Your task to perform on an android device: change notification settings in the gmail app Image 0: 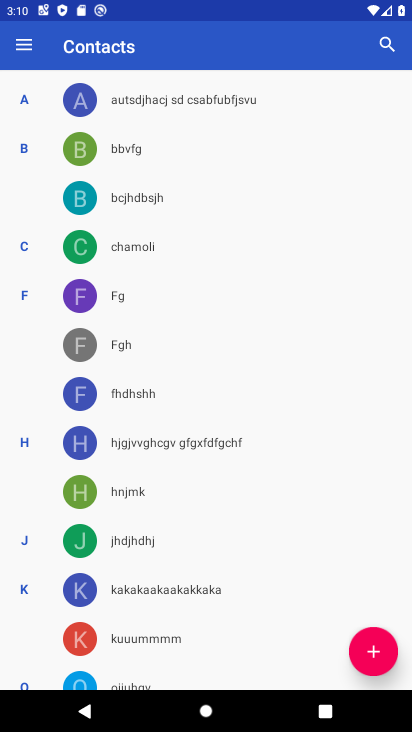
Step 0: press home button
Your task to perform on an android device: change notification settings in the gmail app Image 1: 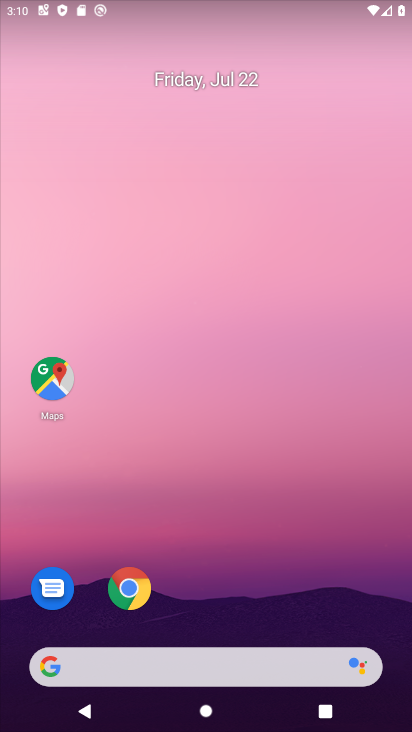
Step 1: drag from (187, 633) to (232, 295)
Your task to perform on an android device: change notification settings in the gmail app Image 2: 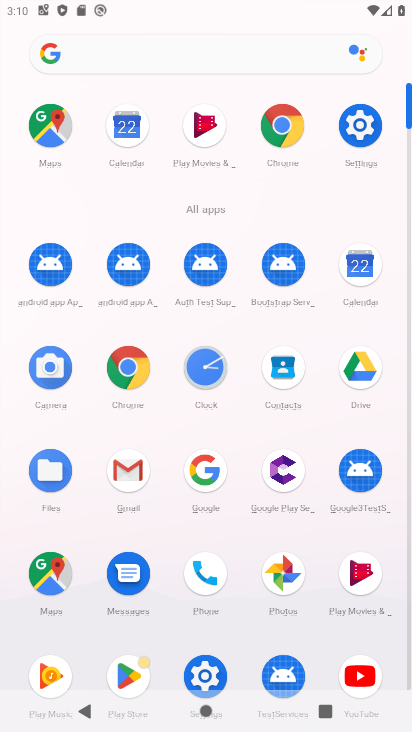
Step 2: click (142, 466)
Your task to perform on an android device: change notification settings in the gmail app Image 3: 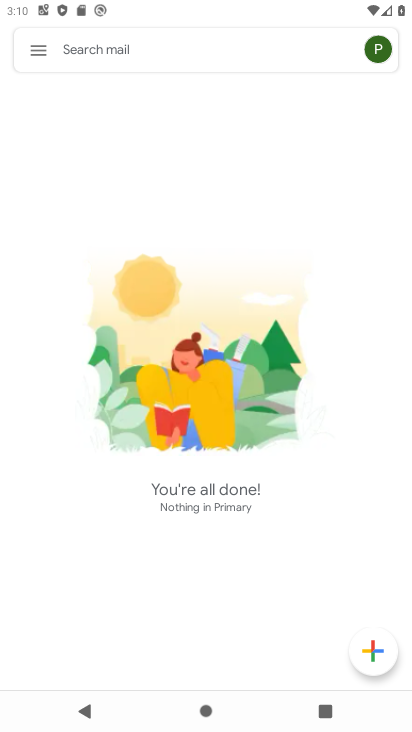
Step 3: click (46, 46)
Your task to perform on an android device: change notification settings in the gmail app Image 4: 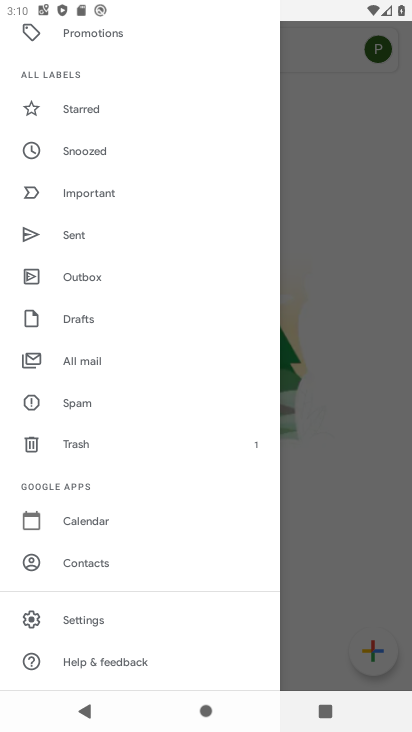
Step 4: click (72, 617)
Your task to perform on an android device: change notification settings in the gmail app Image 5: 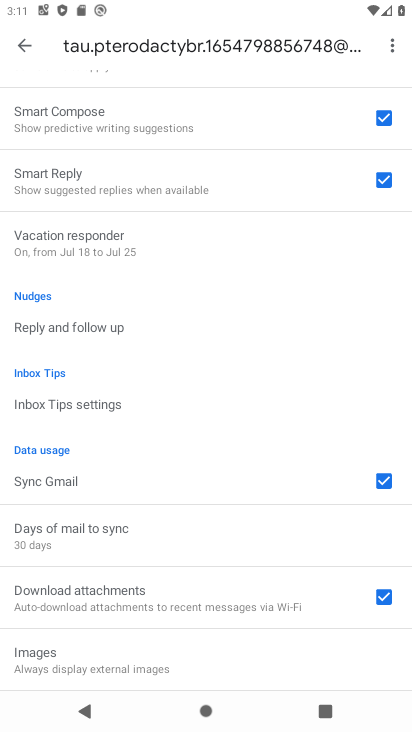
Step 5: drag from (82, 128) to (152, 496)
Your task to perform on an android device: change notification settings in the gmail app Image 6: 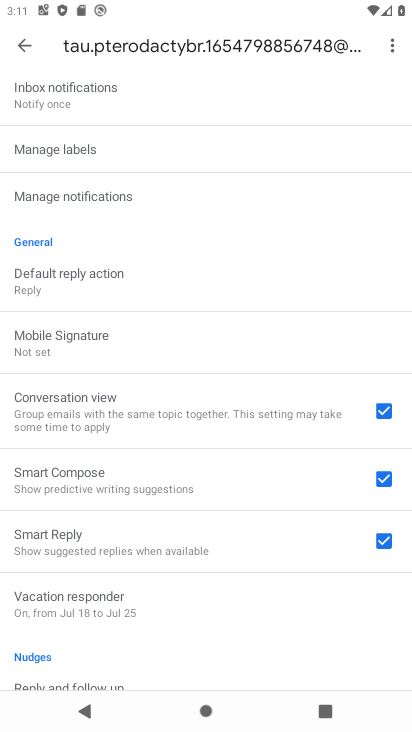
Step 6: click (64, 199)
Your task to perform on an android device: change notification settings in the gmail app Image 7: 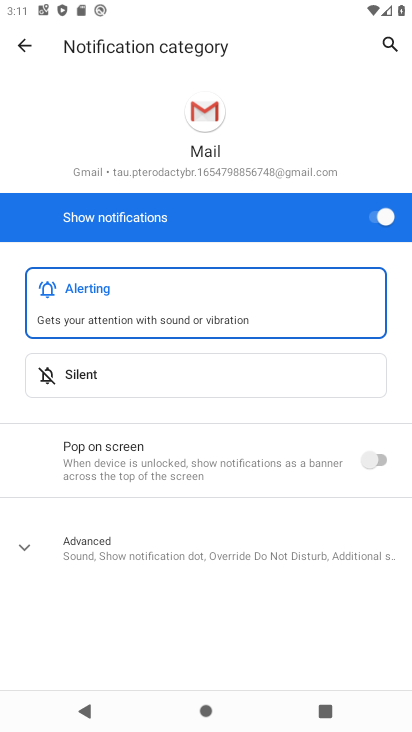
Step 7: click (377, 216)
Your task to perform on an android device: change notification settings in the gmail app Image 8: 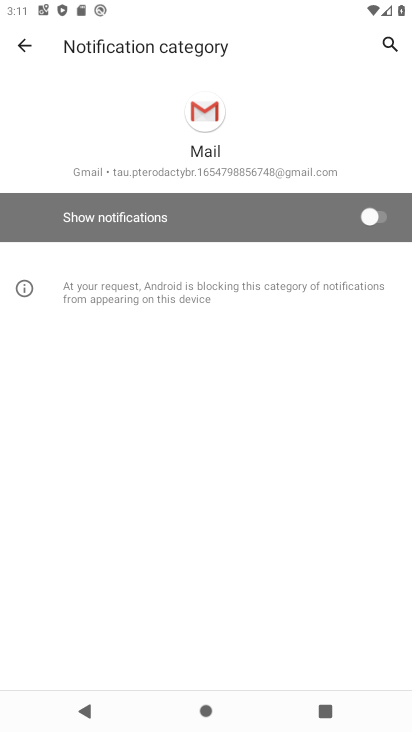
Step 8: task complete